Your task to perform on an android device: Go to Amazon Image 0: 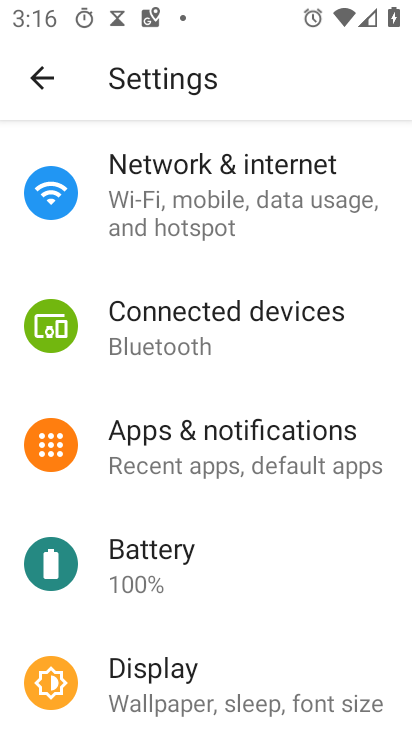
Step 0: press back button
Your task to perform on an android device: Go to Amazon Image 1: 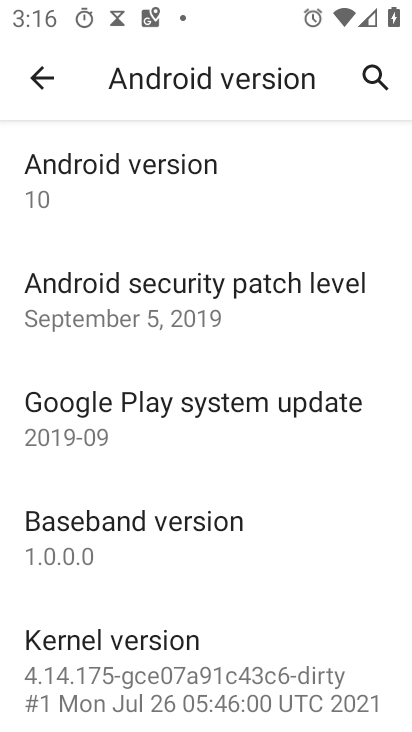
Step 1: press back button
Your task to perform on an android device: Go to Amazon Image 2: 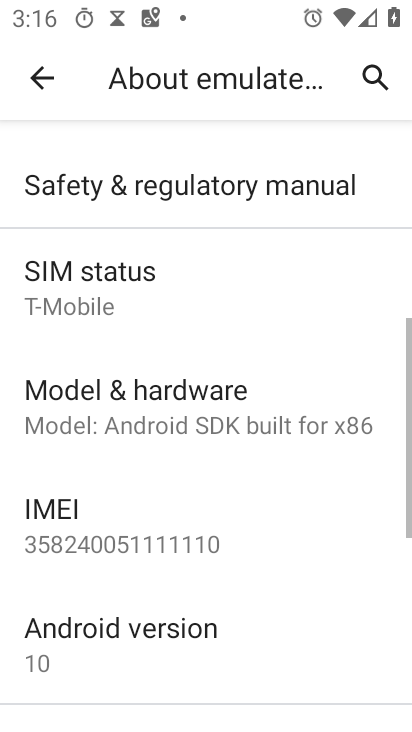
Step 2: press back button
Your task to perform on an android device: Go to Amazon Image 3: 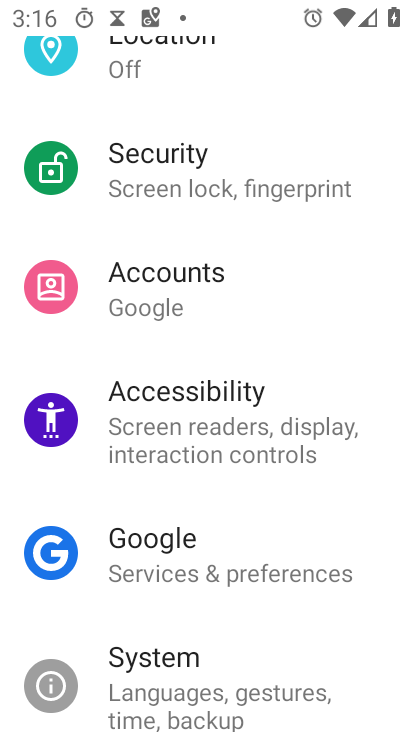
Step 3: press back button
Your task to perform on an android device: Go to Amazon Image 4: 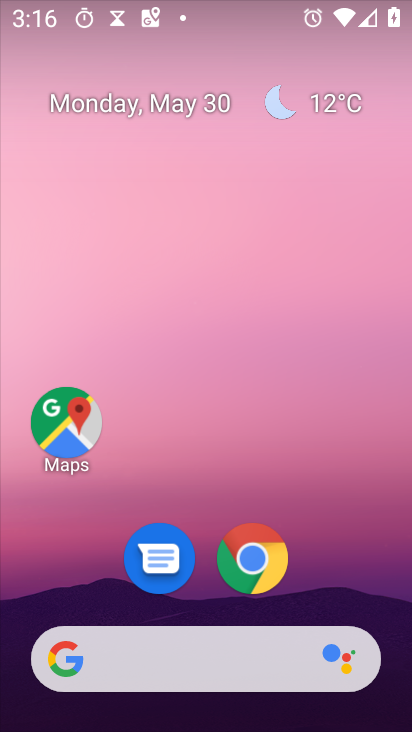
Step 4: click (254, 565)
Your task to perform on an android device: Go to Amazon Image 5: 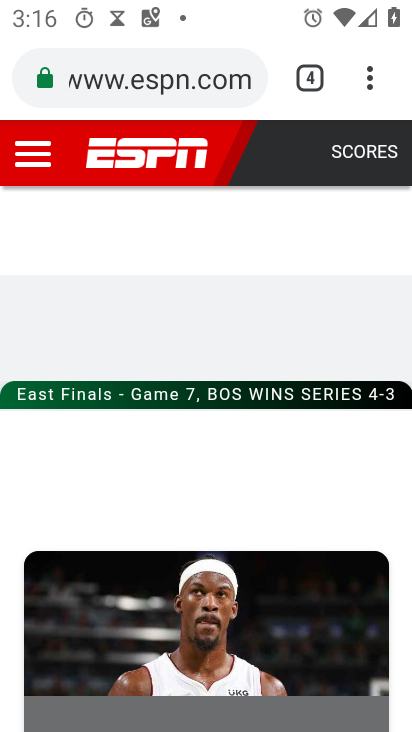
Step 5: click (310, 79)
Your task to perform on an android device: Go to Amazon Image 6: 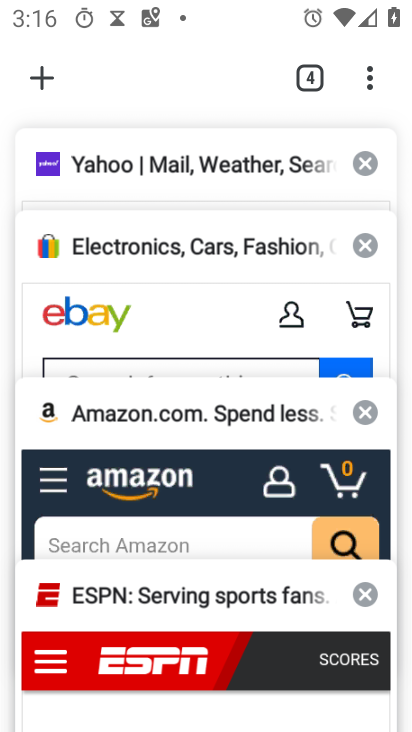
Step 6: click (102, 473)
Your task to perform on an android device: Go to Amazon Image 7: 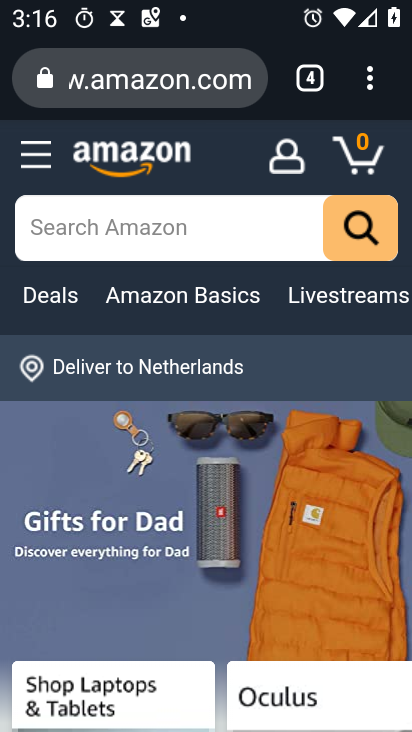
Step 7: task complete